Your task to perform on an android device: Open network settings Image 0: 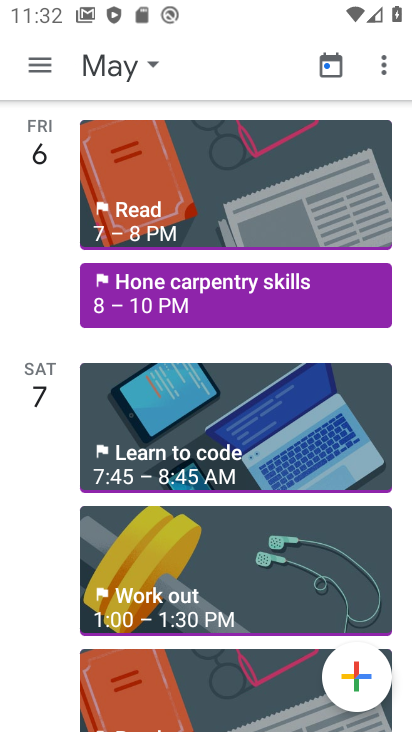
Step 0: press back button
Your task to perform on an android device: Open network settings Image 1: 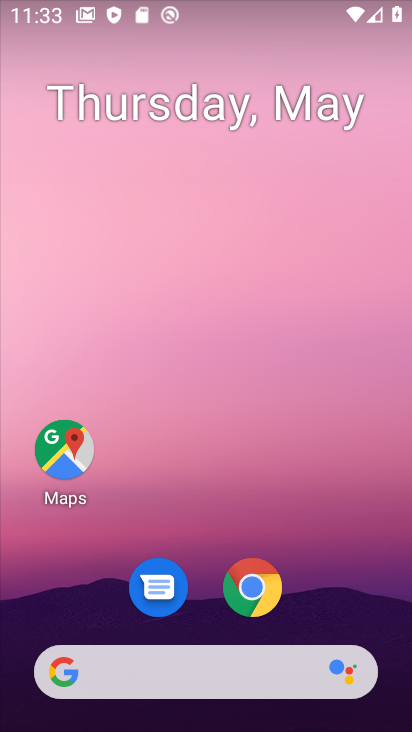
Step 1: drag from (197, 627) to (340, 69)
Your task to perform on an android device: Open network settings Image 2: 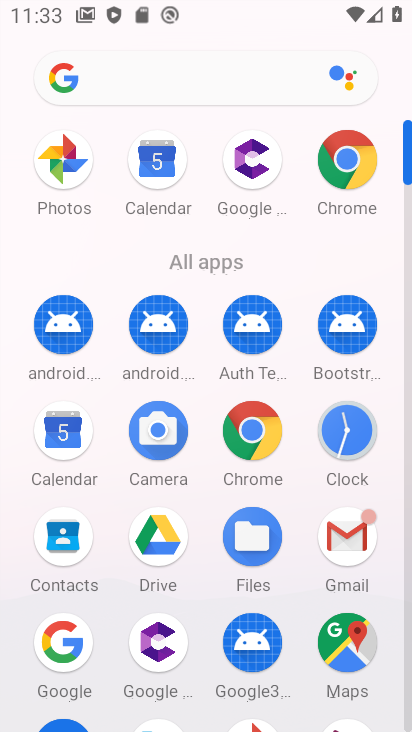
Step 2: drag from (186, 616) to (304, 108)
Your task to perform on an android device: Open network settings Image 3: 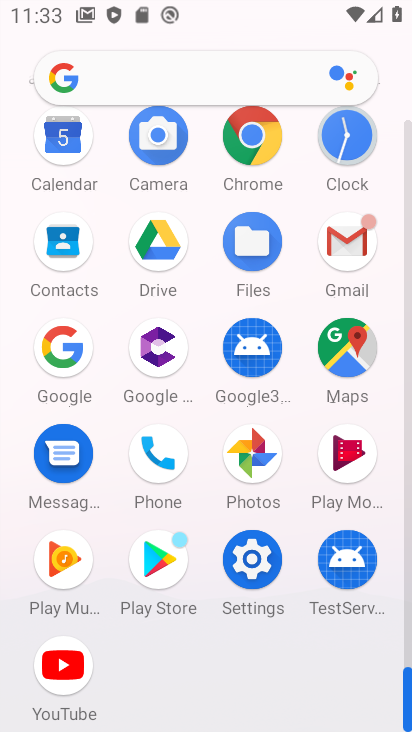
Step 3: click (258, 553)
Your task to perform on an android device: Open network settings Image 4: 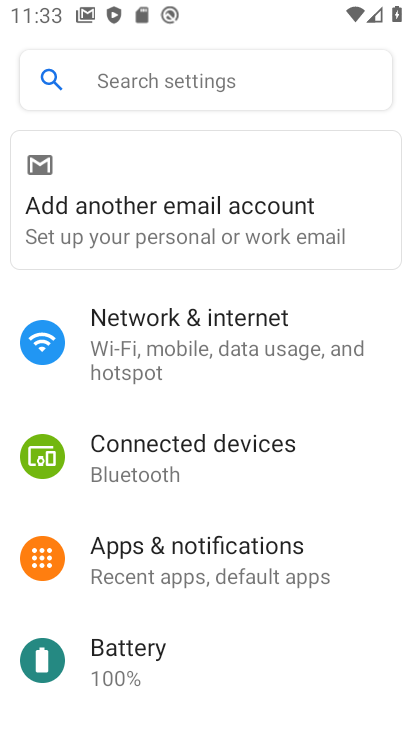
Step 4: click (191, 327)
Your task to perform on an android device: Open network settings Image 5: 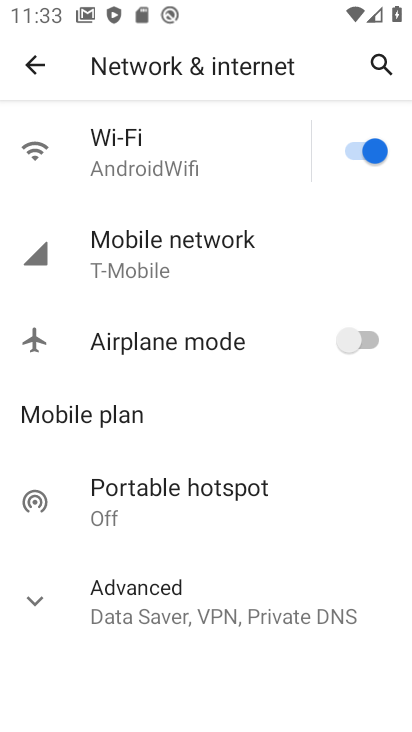
Step 5: task complete